Your task to perform on an android device: uninstall "Instagram" Image 0: 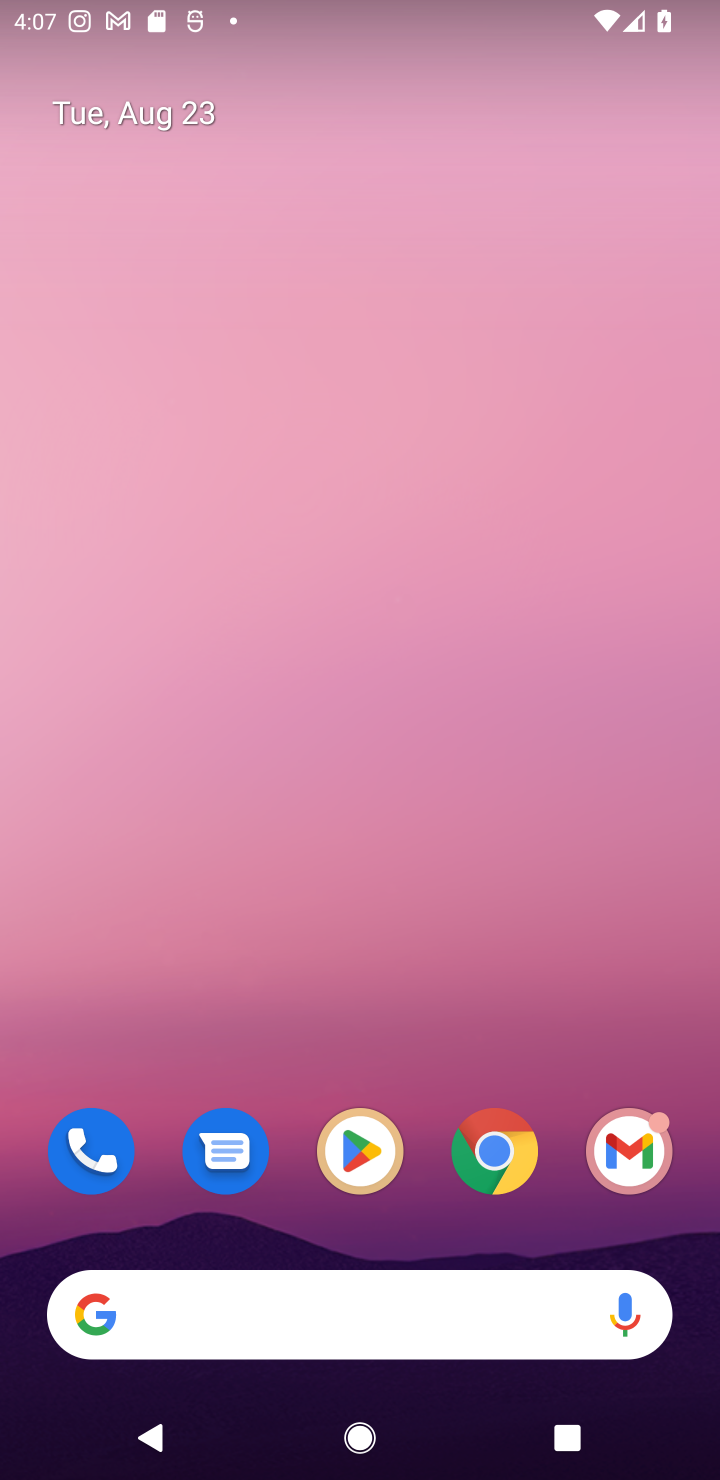
Step 0: click (361, 1137)
Your task to perform on an android device: uninstall "Instagram" Image 1: 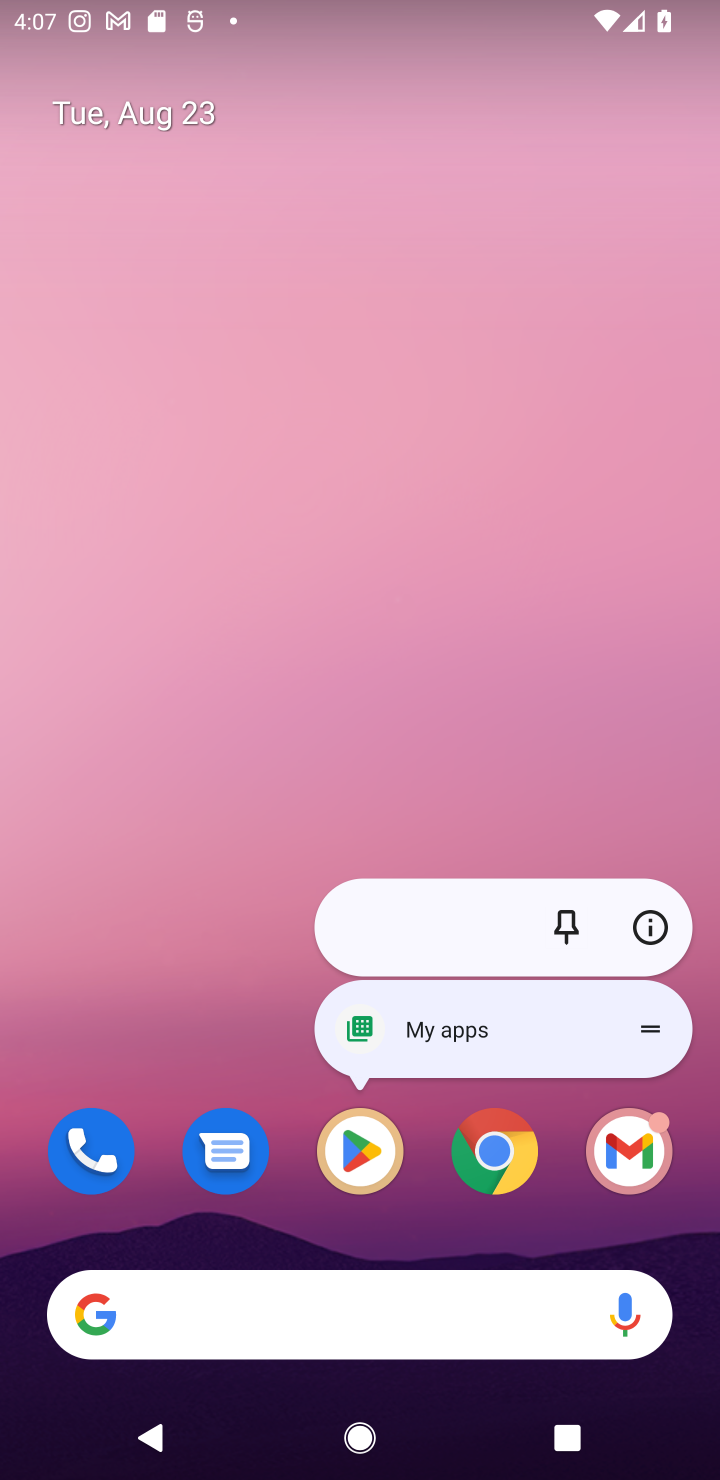
Step 1: click (361, 1130)
Your task to perform on an android device: uninstall "Instagram" Image 2: 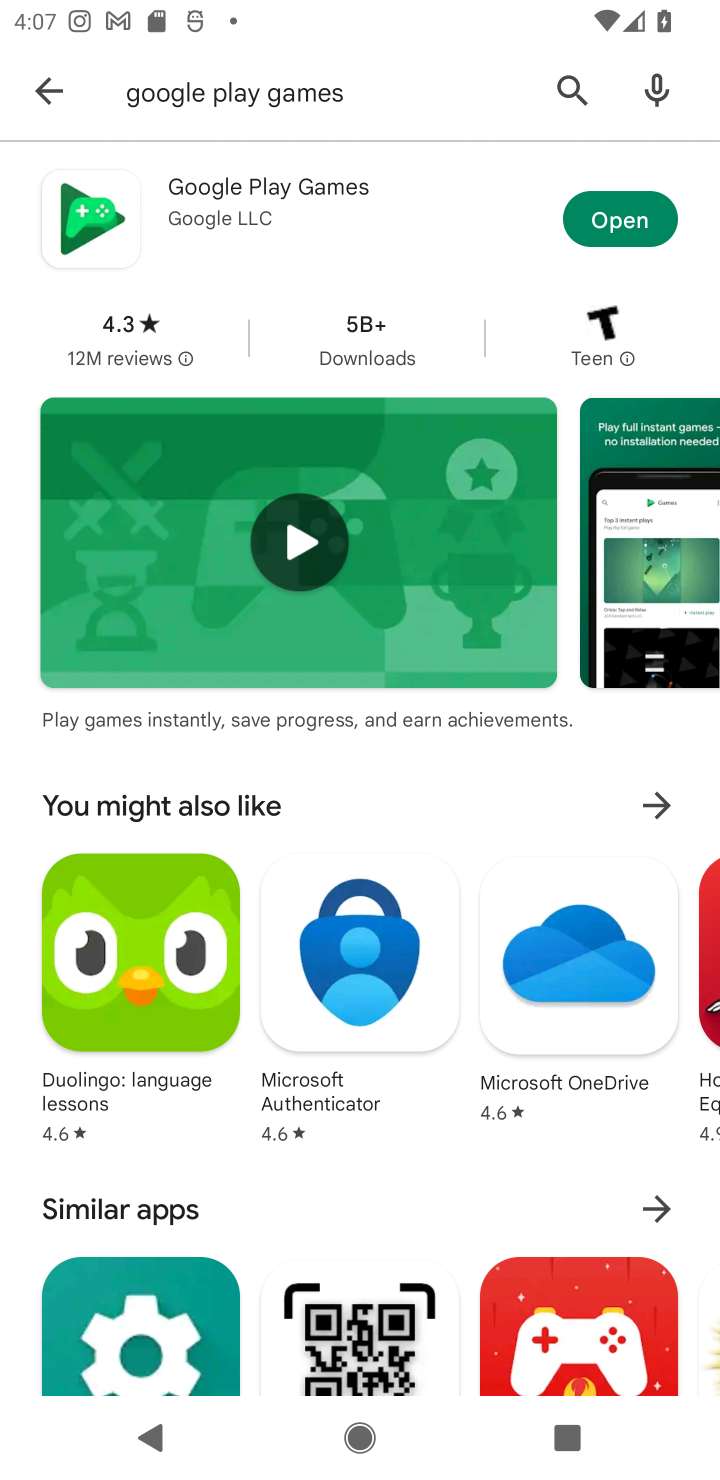
Step 2: click (582, 86)
Your task to perform on an android device: uninstall "Instagram" Image 3: 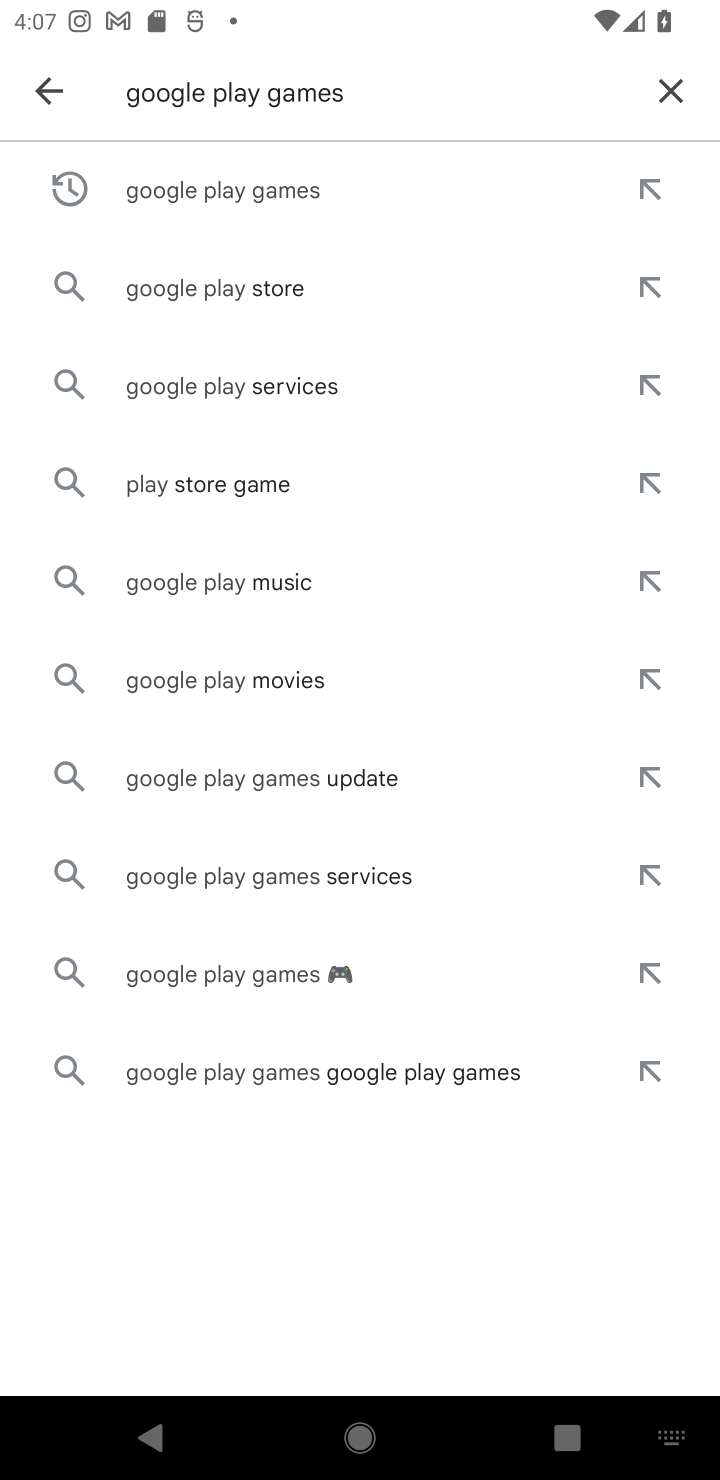
Step 3: click (673, 87)
Your task to perform on an android device: uninstall "Instagram" Image 4: 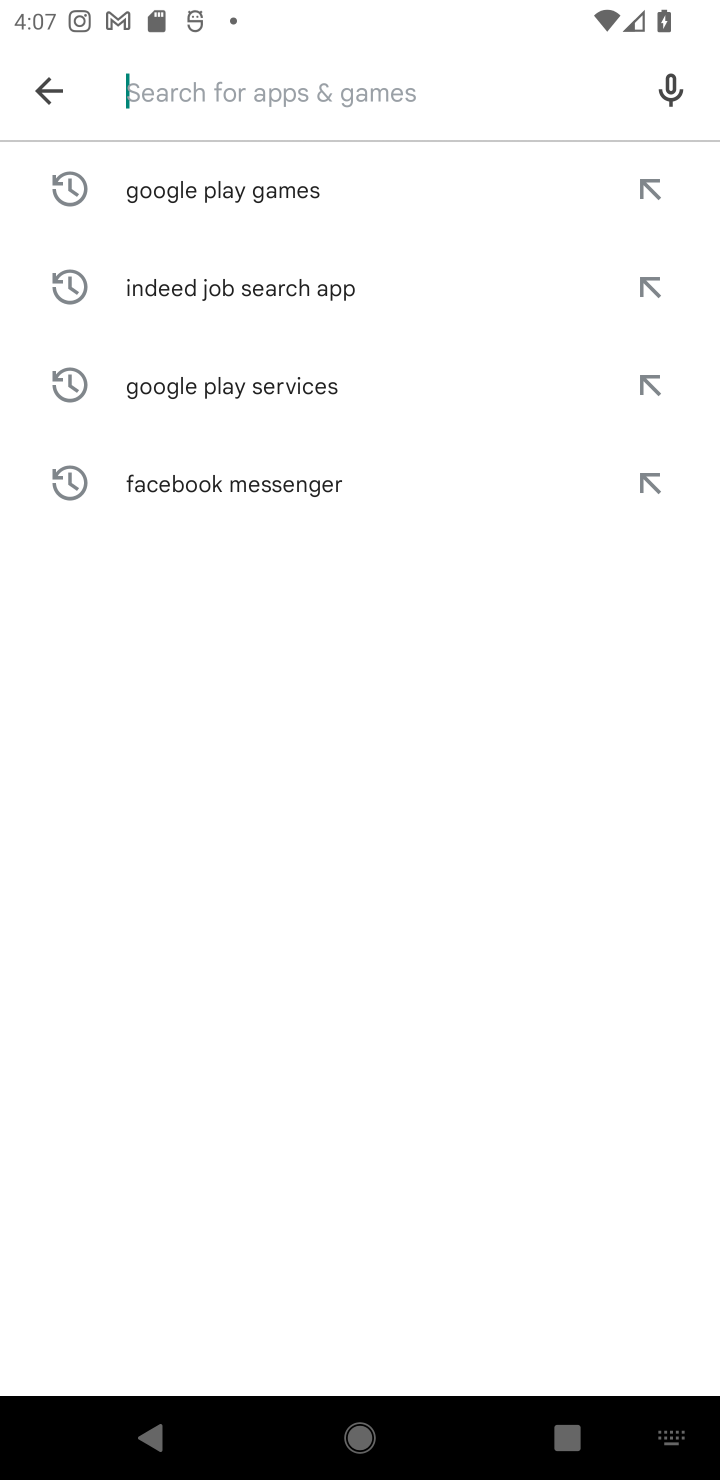
Step 4: type "Instagram"
Your task to perform on an android device: uninstall "Instagram" Image 5: 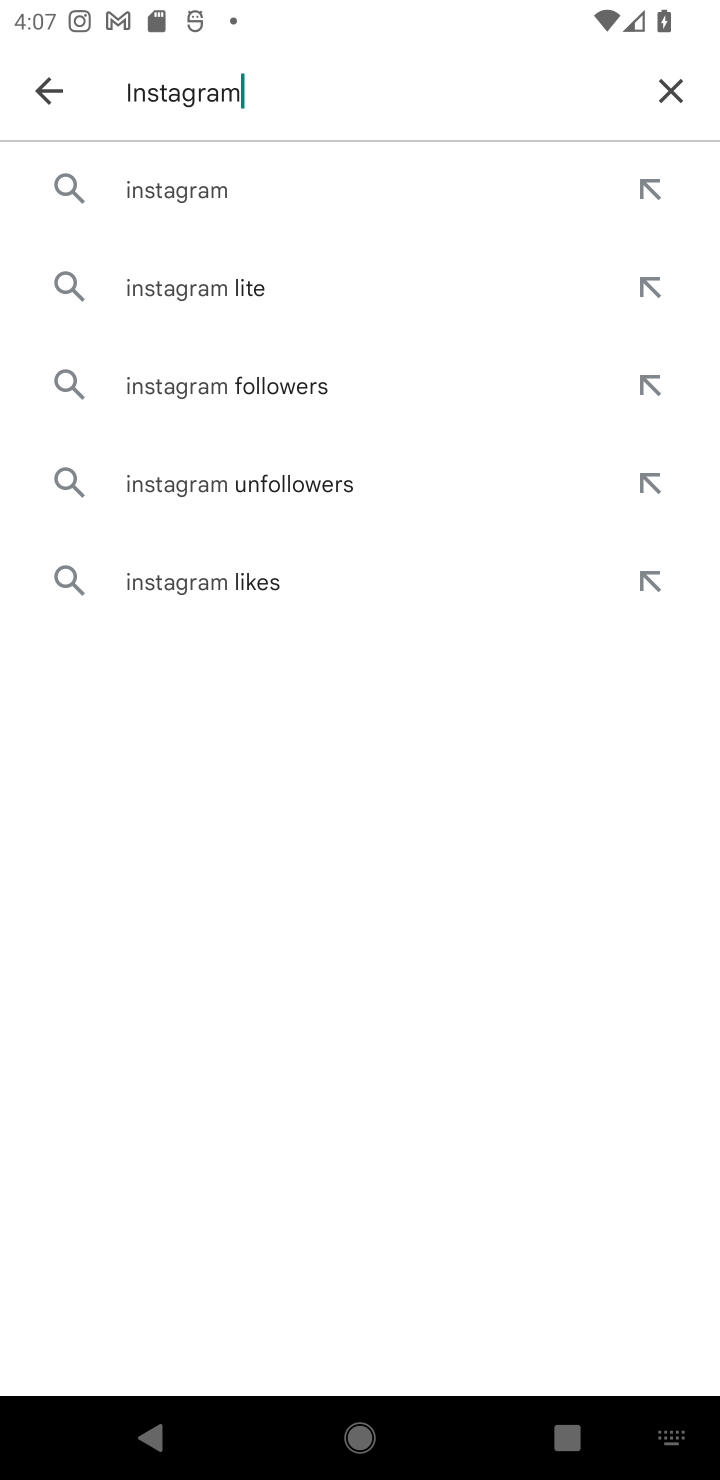
Step 5: click (222, 194)
Your task to perform on an android device: uninstall "Instagram" Image 6: 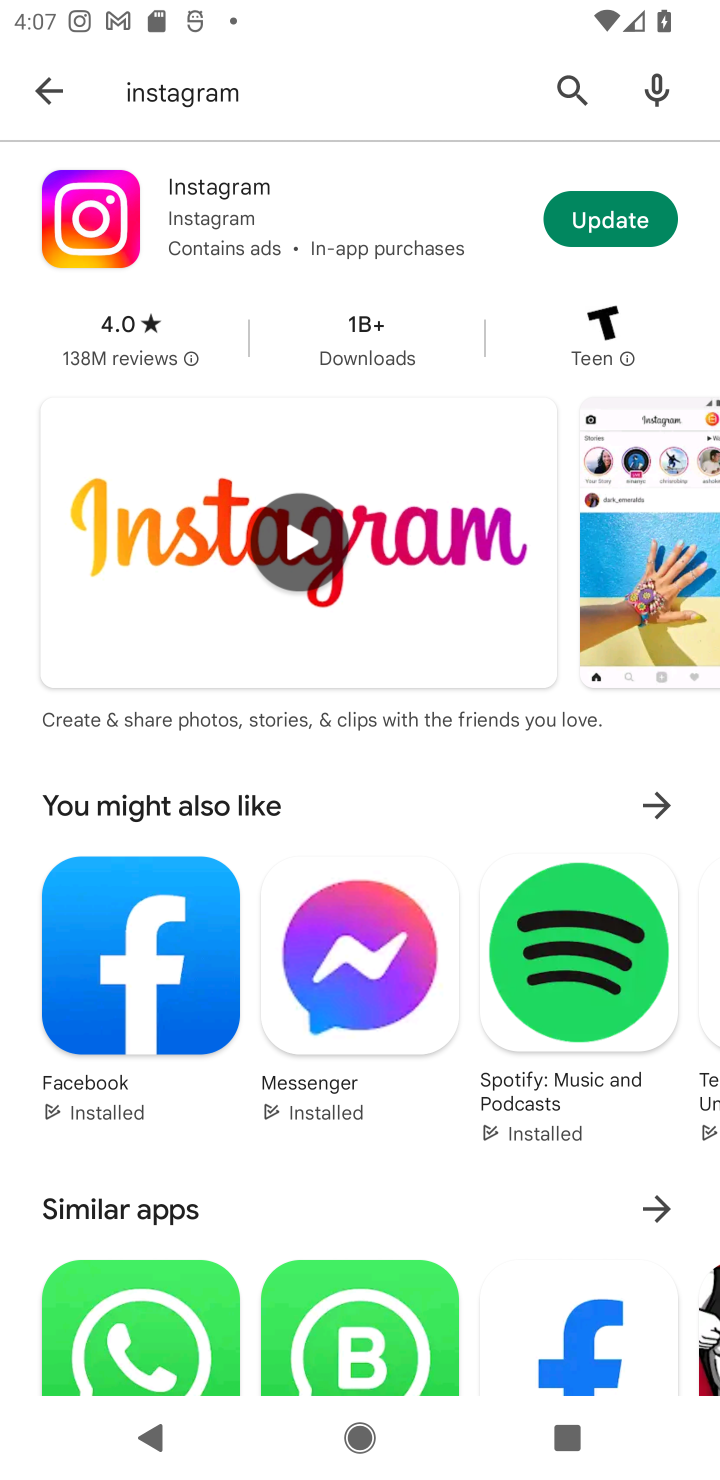
Step 6: click (127, 205)
Your task to perform on an android device: uninstall "Instagram" Image 7: 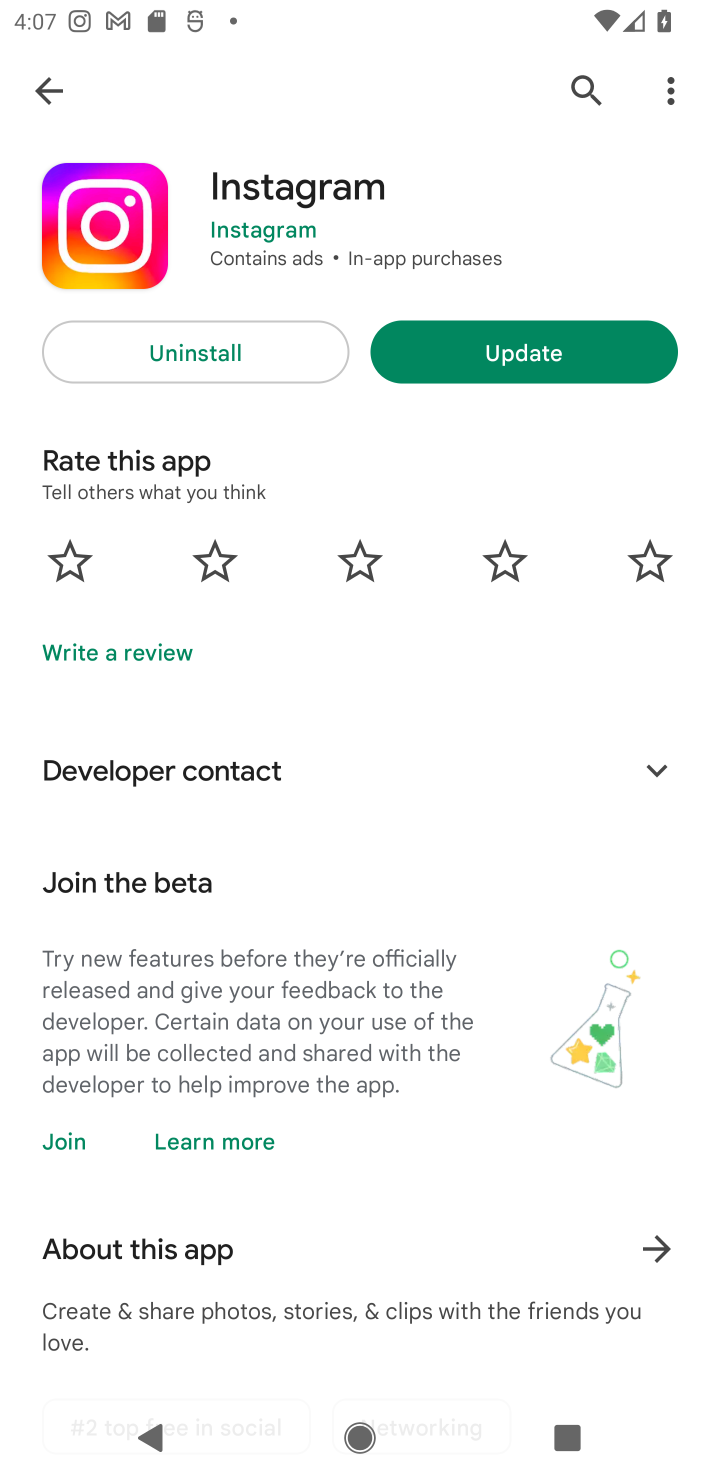
Step 7: click (231, 350)
Your task to perform on an android device: uninstall "Instagram" Image 8: 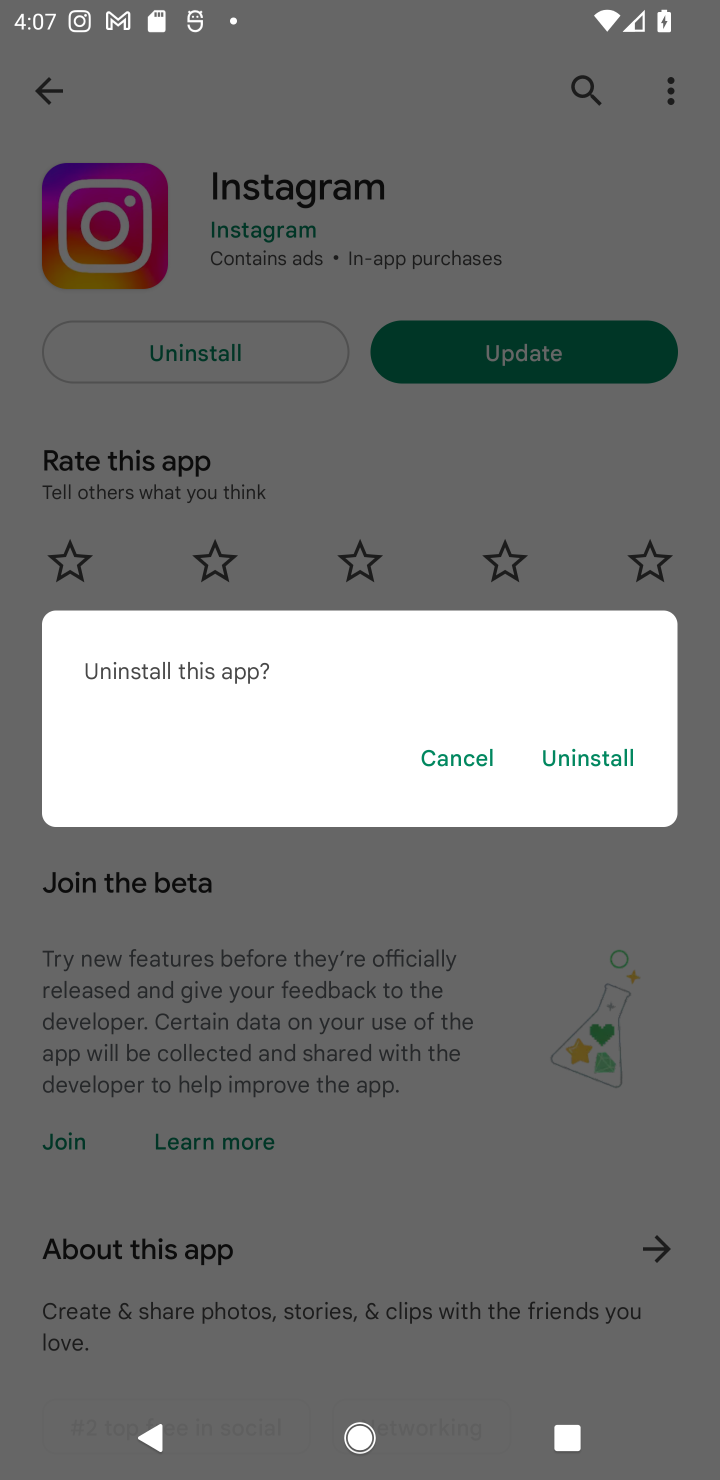
Step 8: click (570, 748)
Your task to perform on an android device: uninstall "Instagram" Image 9: 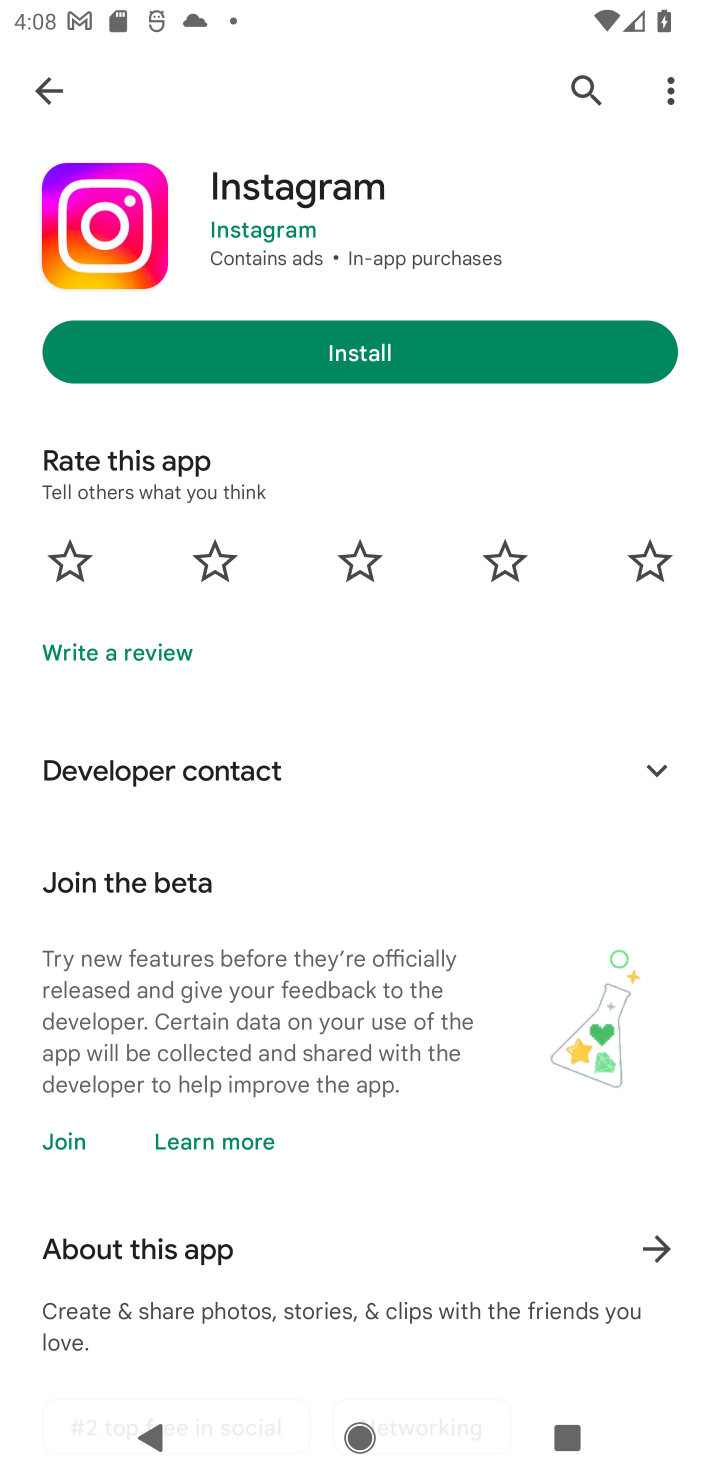
Step 9: task complete